Your task to perform on an android device: change notification settings in the gmail app Image 0: 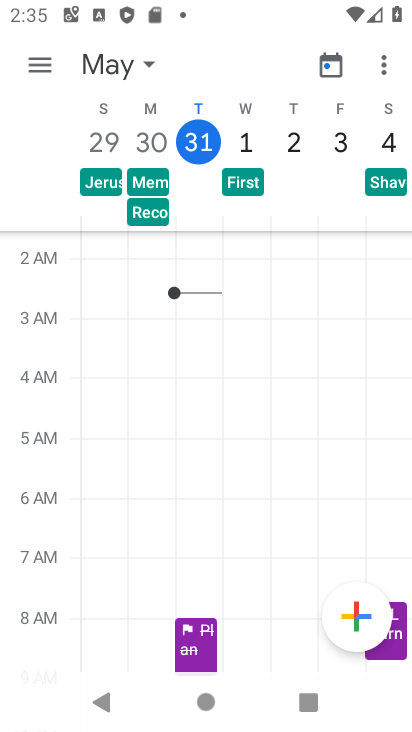
Step 0: press home button
Your task to perform on an android device: change notification settings in the gmail app Image 1: 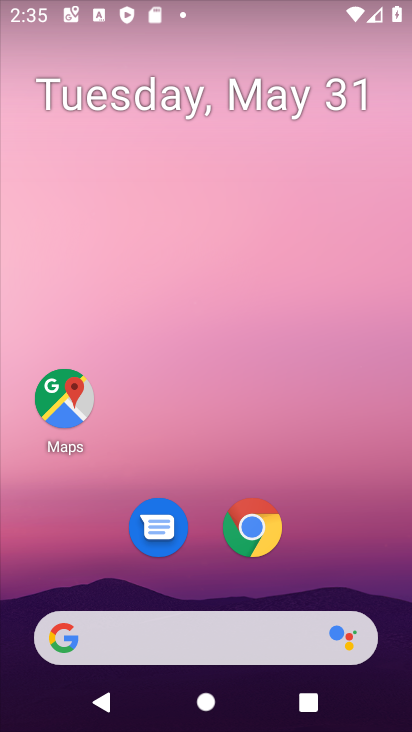
Step 1: drag from (387, 627) to (332, 170)
Your task to perform on an android device: change notification settings in the gmail app Image 2: 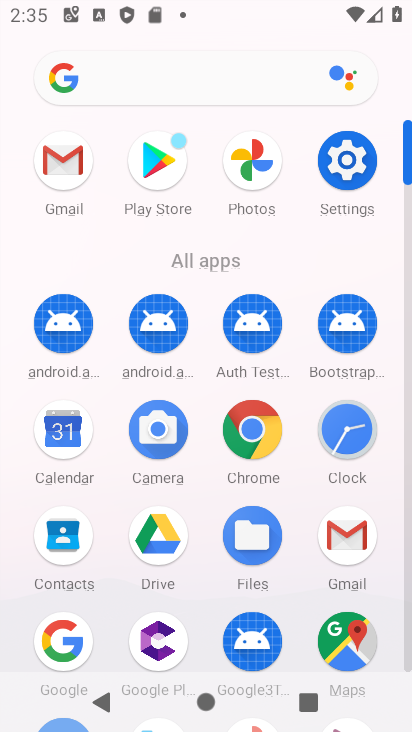
Step 2: click (409, 659)
Your task to perform on an android device: change notification settings in the gmail app Image 3: 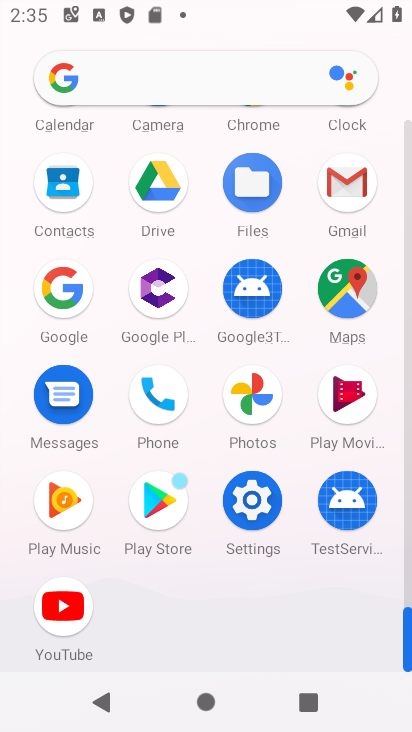
Step 3: click (346, 182)
Your task to perform on an android device: change notification settings in the gmail app Image 4: 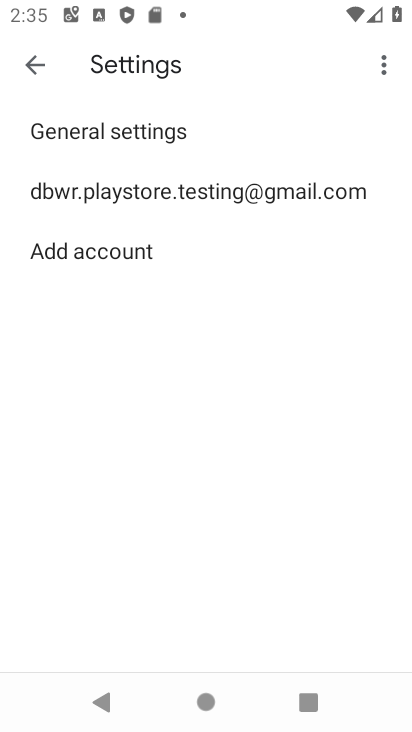
Step 4: click (167, 199)
Your task to perform on an android device: change notification settings in the gmail app Image 5: 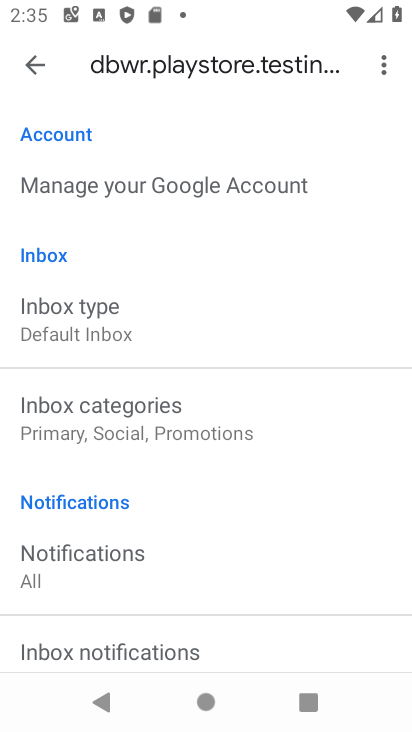
Step 5: drag from (227, 626) to (208, 187)
Your task to perform on an android device: change notification settings in the gmail app Image 6: 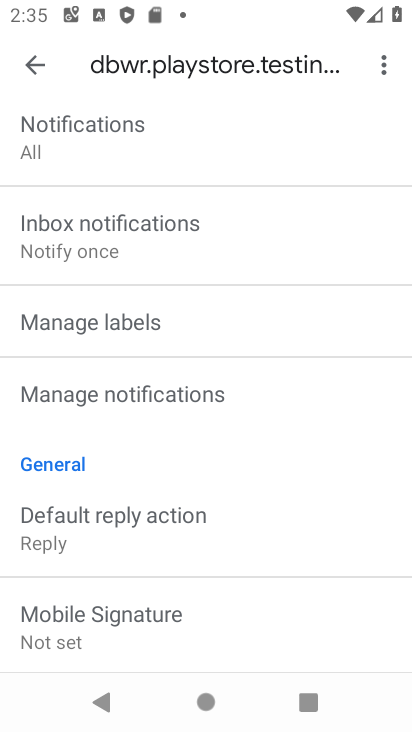
Step 6: click (121, 400)
Your task to perform on an android device: change notification settings in the gmail app Image 7: 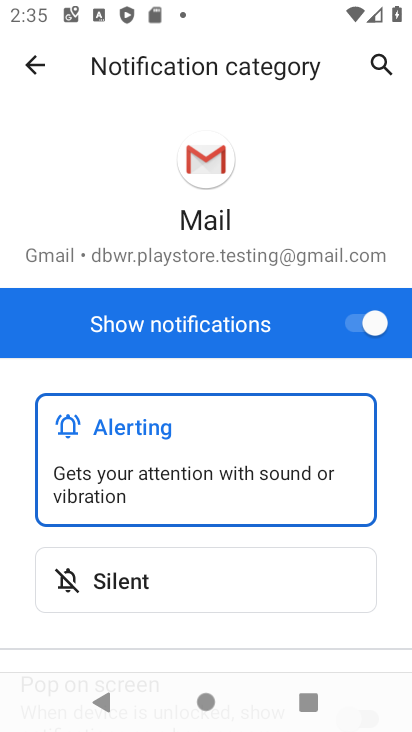
Step 7: click (351, 319)
Your task to perform on an android device: change notification settings in the gmail app Image 8: 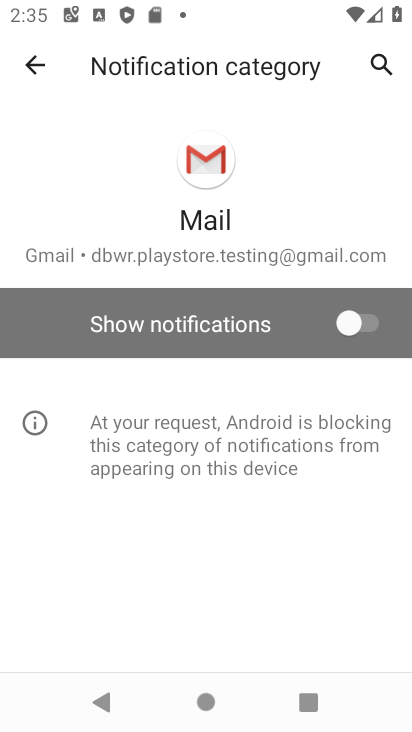
Step 8: task complete